Your task to perform on an android device: empty trash in google photos Image 0: 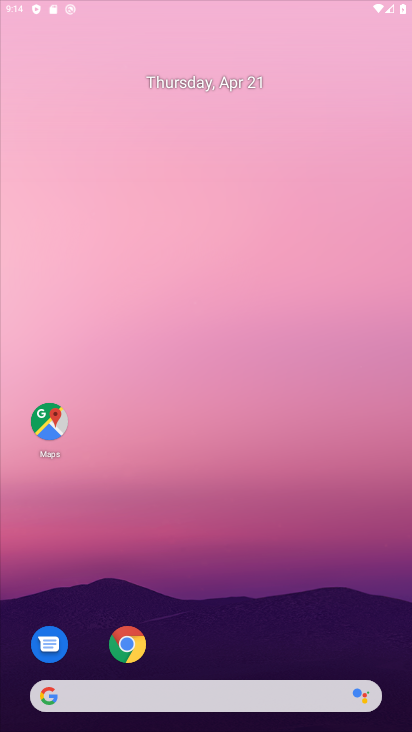
Step 0: drag from (317, 643) to (274, 64)
Your task to perform on an android device: empty trash in google photos Image 1: 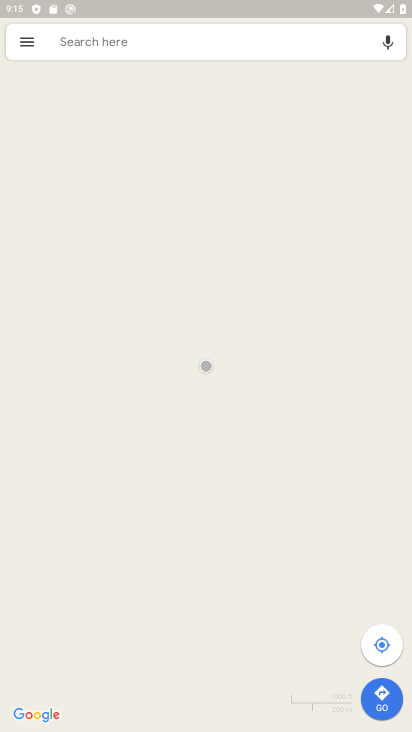
Step 1: press home button
Your task to perform on an android device: empty trash in google photos Image 2: 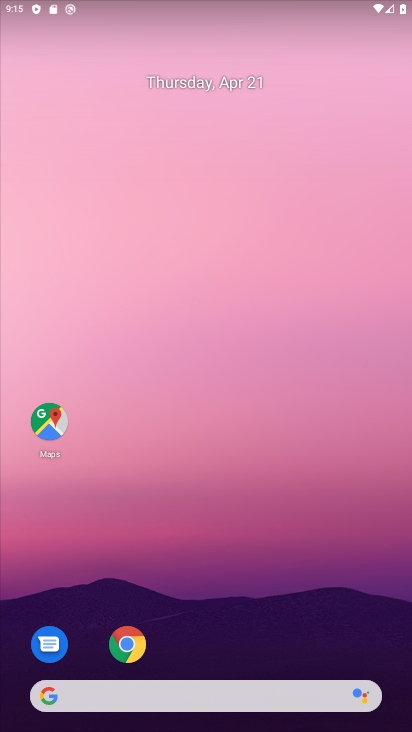
Step 2: drag from (354, 639) to (132, 125)
Your task to perform on an android device: empty trash in google photos Image 3: 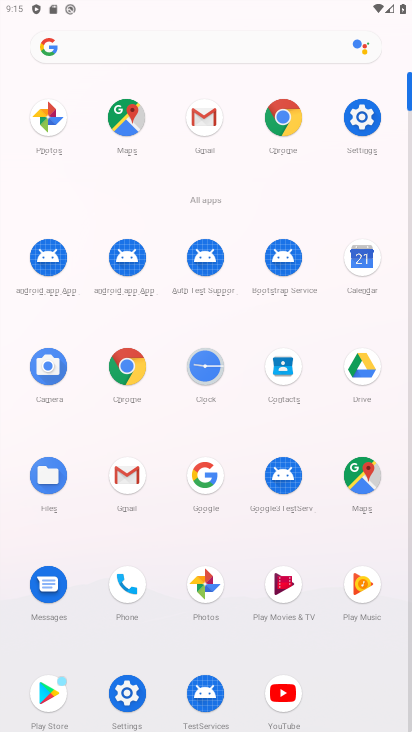
Step 3: click (206, 119)
Your task to perform on an android device: empty trash in google photos Image 4: 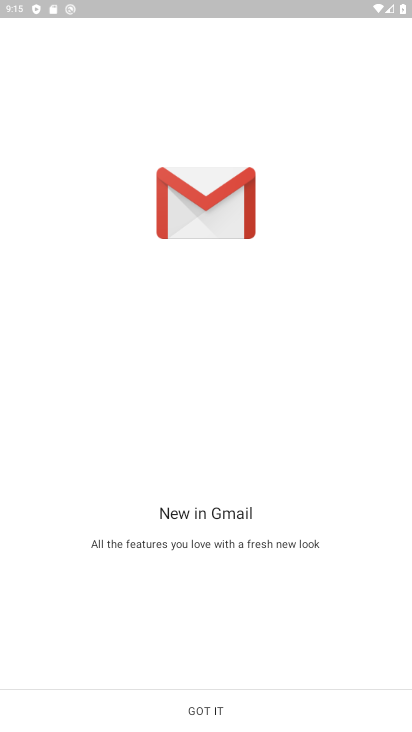
Step 4: click (206, 712)
Your task to perform on an android device: empty trash in google photos Image 5: 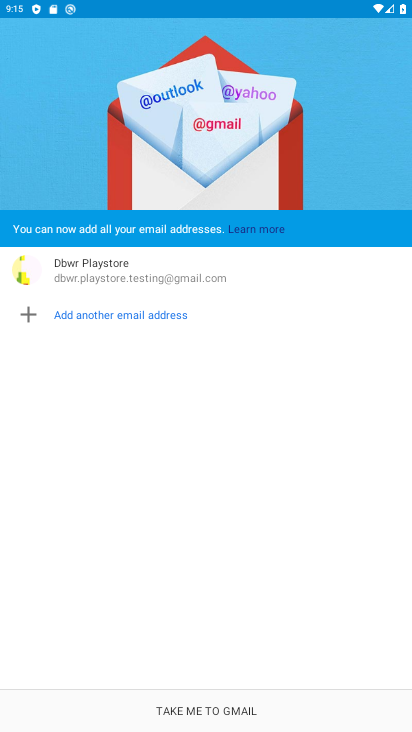
Step 5: click (205, 712)
Your task to perform on an android device: empty trash in google photos Image 6: 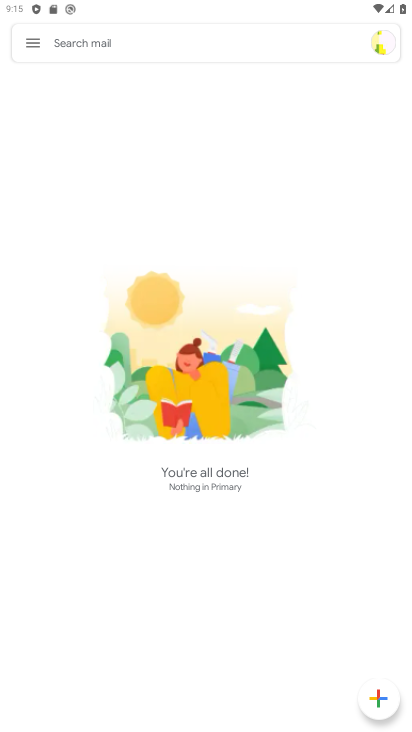
Step 6: click (21, 44)
Your task to perform on an android device: empty trash in google photos Image 7: 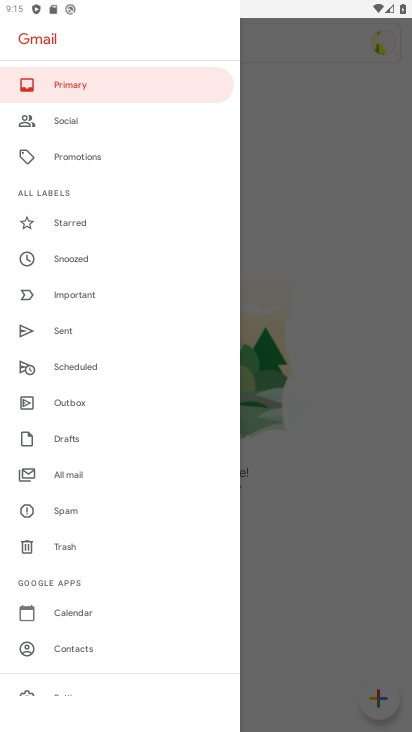
Step 7: drag from (128, 654) to (115, 468)
Your task to perform on an android device: empty trash in google photos Image 8: 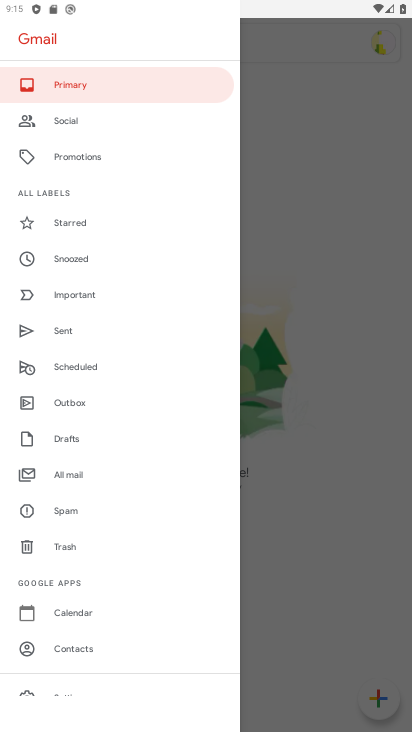
Step 8: click (113, 540)
Your task to perform on an android device: empty trash in google photos Image 9: 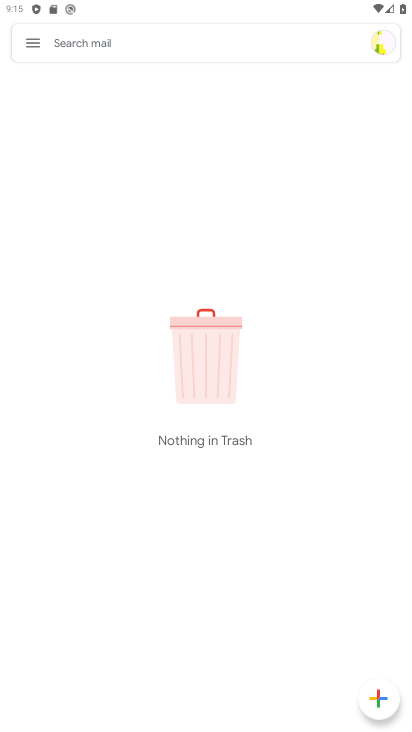
Step 9: task complete